Your task to perform on an android device: Go to Reddit.com Image 0: 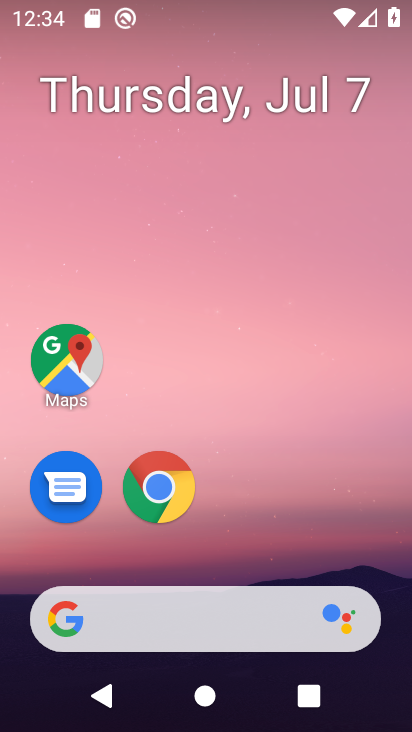
Step 0: drag from (322, 534) to (362, 89)
Your task to perform on an android device: Go to Reddit.com Image 1: 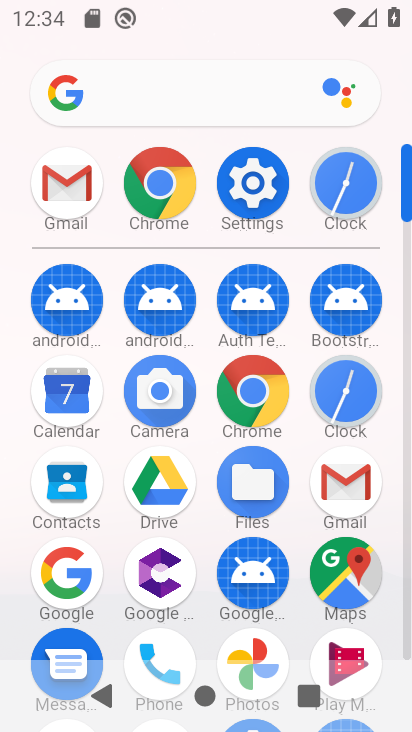
Step 1: click (263, 392)
Your task to perform on an android device: Go to Reddit.com Image 2: 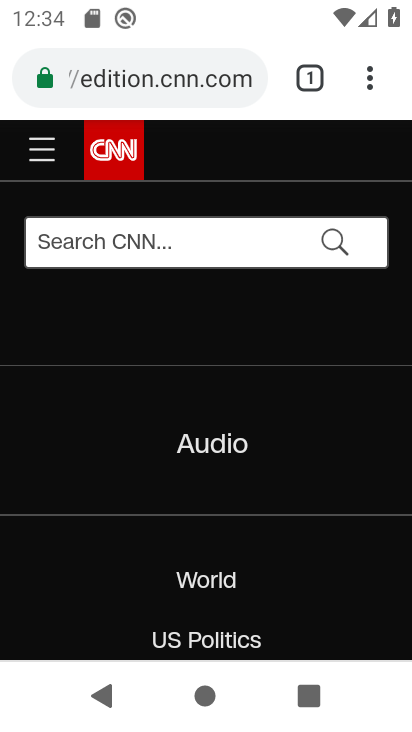
Step 2: click (212, 86)
Your task to perform on an android device: Go to Reddit.com Image 3: 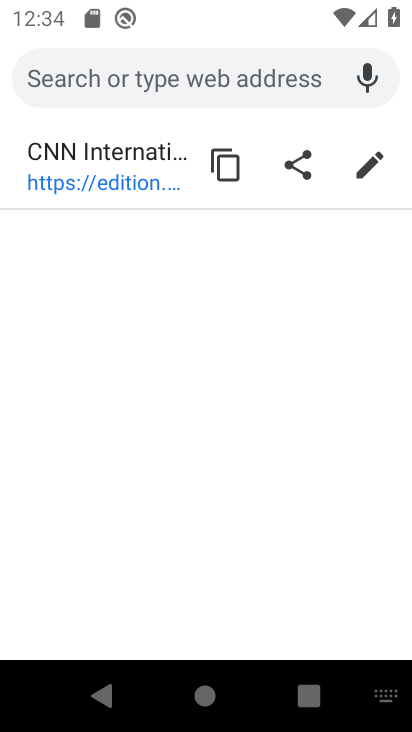
Step 3: type "reddit.com"
Your task to perform on an android device: Go to Reddit.com Image 4: 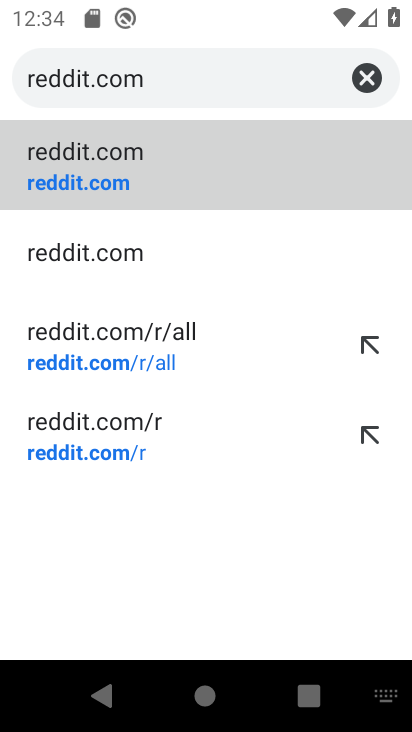
Step 4: click (168, 170)
Your task to perform on an android device: Go to Reddit.com Image 5: 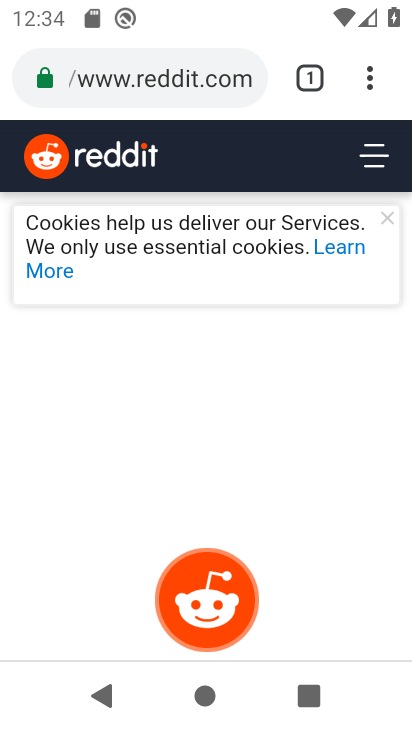
Step 5: task complete